Your task to perform on an android device: Go to Android settings Image 0: 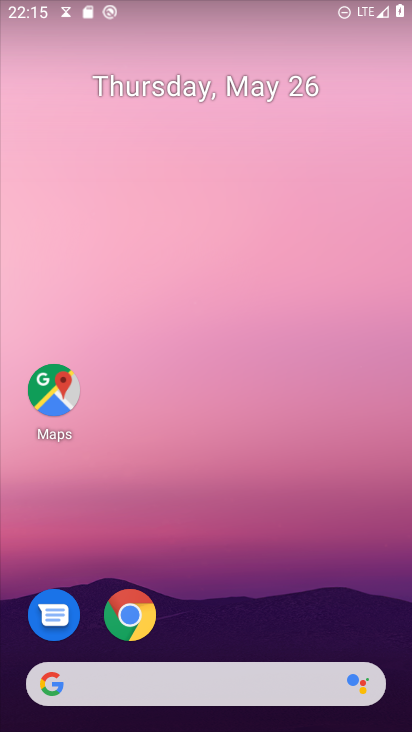
Step 0: drag from (265, 523) to (272, 220)
Your task to perform on an android device: Go to Android settings Image 1: 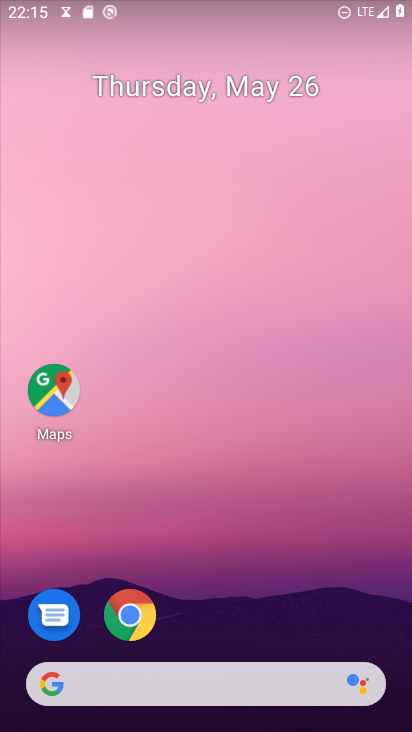
Step 1: drag from (260, 611) to (272, 180)
Your task to perform on an android device: Go to Android settings Image 2: 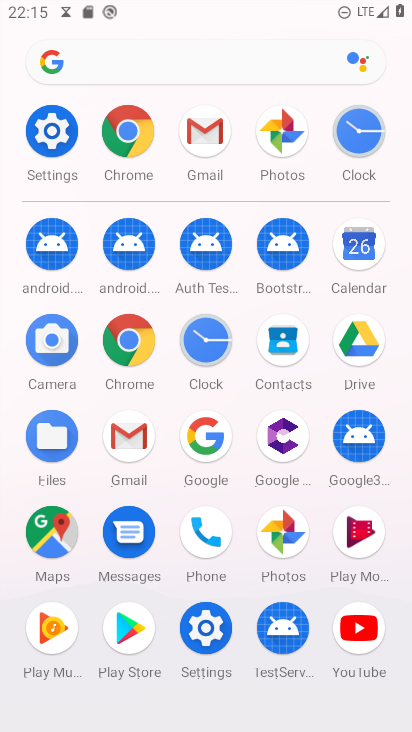
Step 2: click (55, 134)
Your task to perform on an android device: Go to Android settings Image 3: 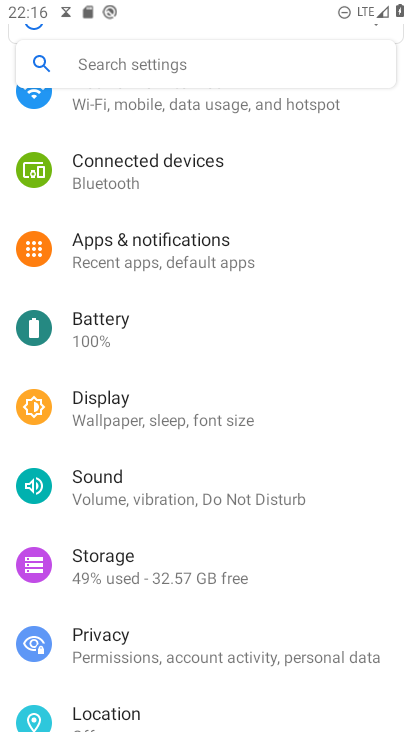
Step 3: task complete